Your task to perform on an android device: Search for Mexican restaurants on Maps Image 0: 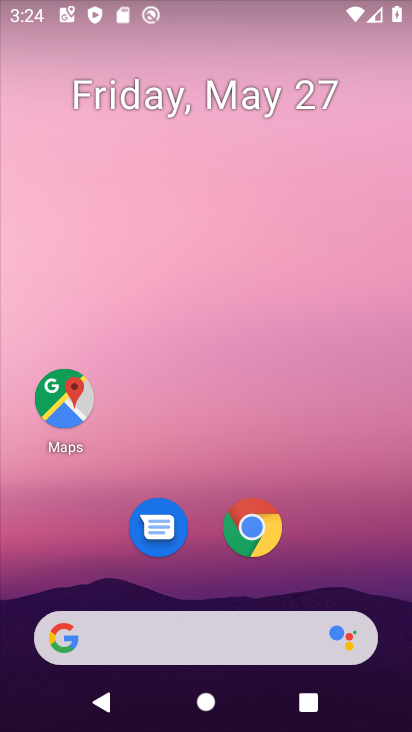
Step 0: click (59, 387)
Your task to perform on an android device: Search for Mexican restaurants on Maps Image 1: 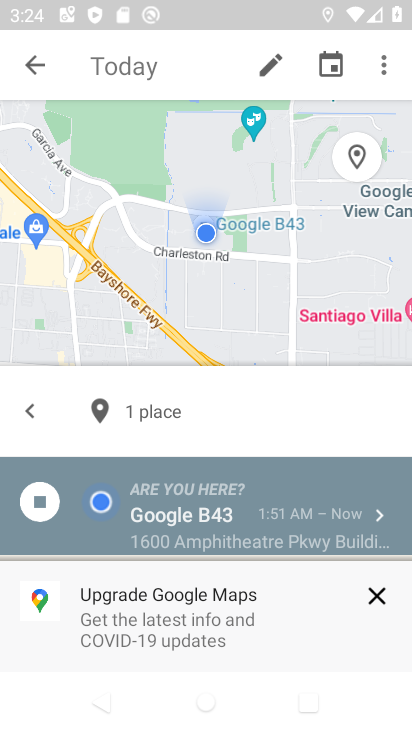
Step 1: click (41, 67)
Your task to perform on an android device: Search for Mexican restaurants on Maps Image 2: 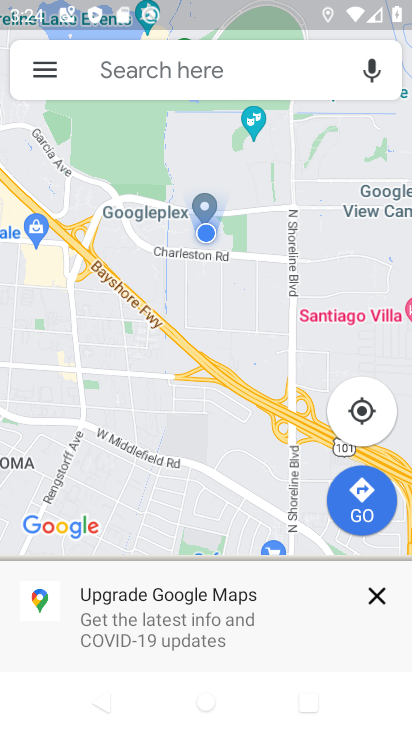
Step 2: click (123, 63)
Your task to perform on an android device: Search for Mexican restaurants on Maps Image 3: 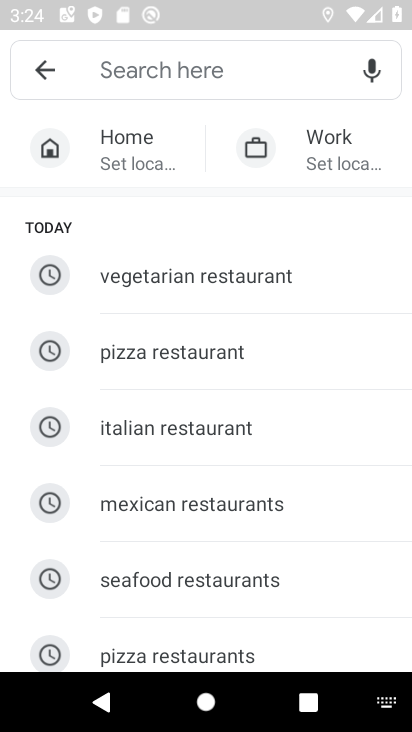
Step 3: type "Mexican restaurants"
Your task to perform on an android device: Search for Mexican restaurants on Maps Image 4: 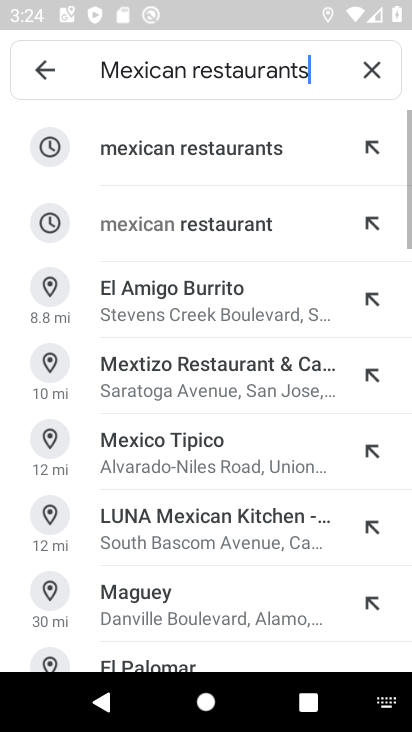
Step 4: click (224, 138)
Your task to perform on an android device: Search for Mexican restaurants on Maps Image 5: 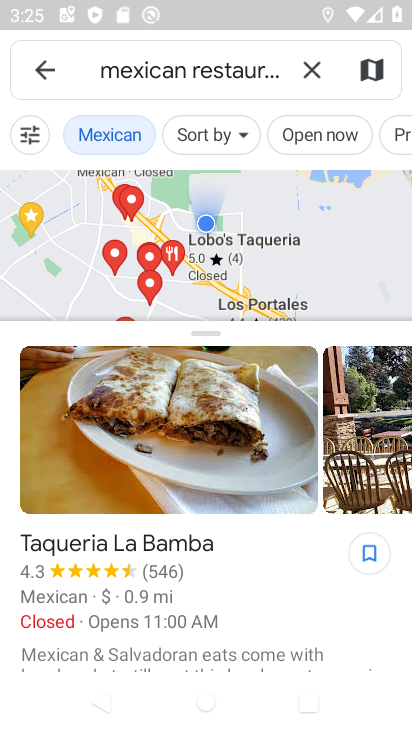
Step 5: task complete